Your task to perform on an android device: Go to accessibility settings Image 0: 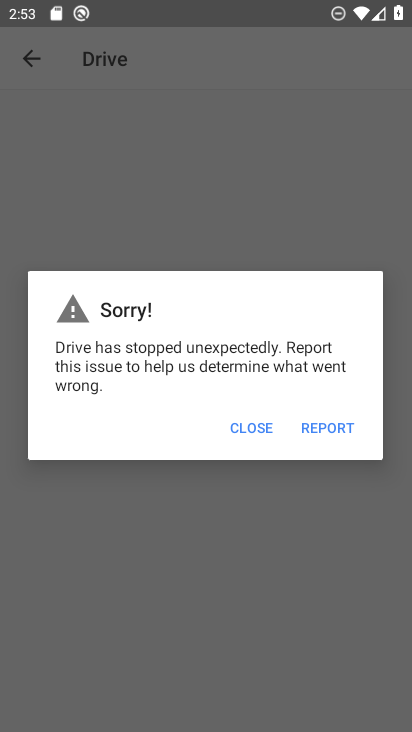
Step 0: click (239, 430)
Your task to perform on an android device: Go to accessibility settings Image 1: 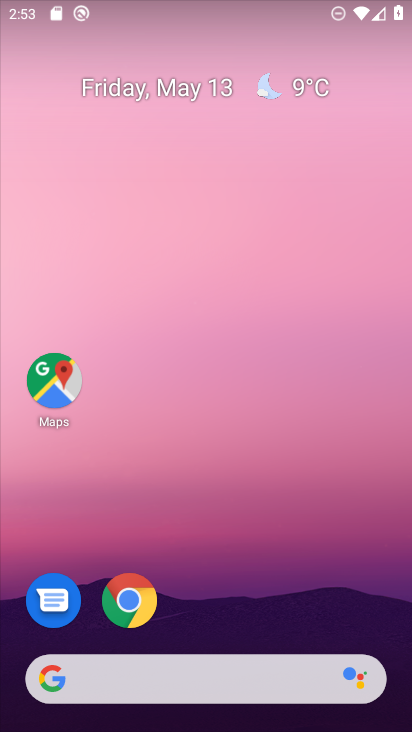
Step 1: drag from (258, 655) to (303, 98)
Your task to perform on an android device: Go to accessibility settings Image 2: 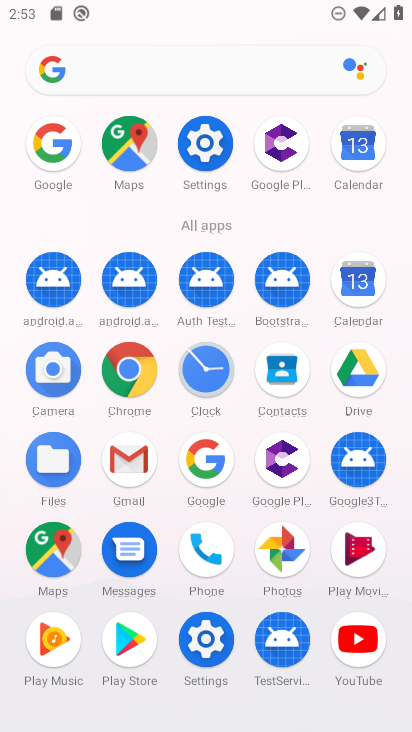
Step 2: click (195, 151)
Your task to perform on an android device: Go to accessibility settings Image 3: 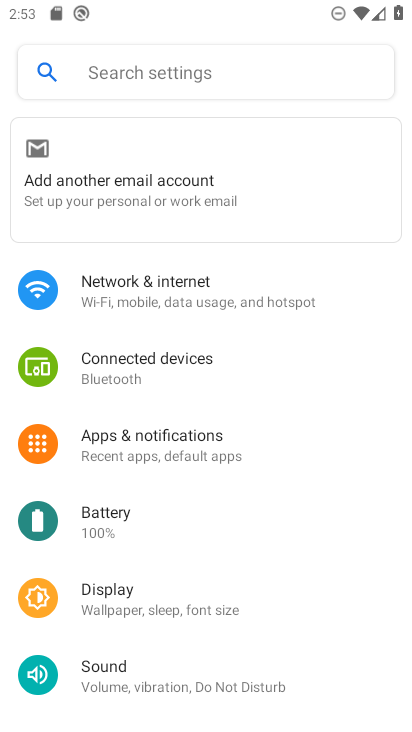
Step 3: drag from (170, 691) to (272, 202)
Your task to perform on an android device: Go to accessibility settings Image 4: 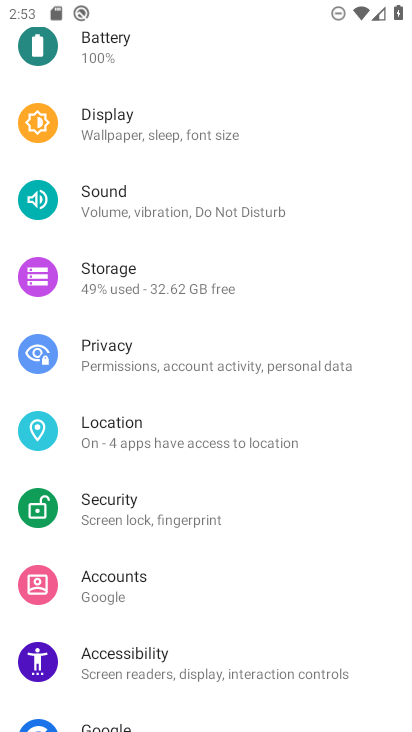
Step 4: click (206, 664)
Your task to perform on an android device: Go to accessibility settings Image 5: 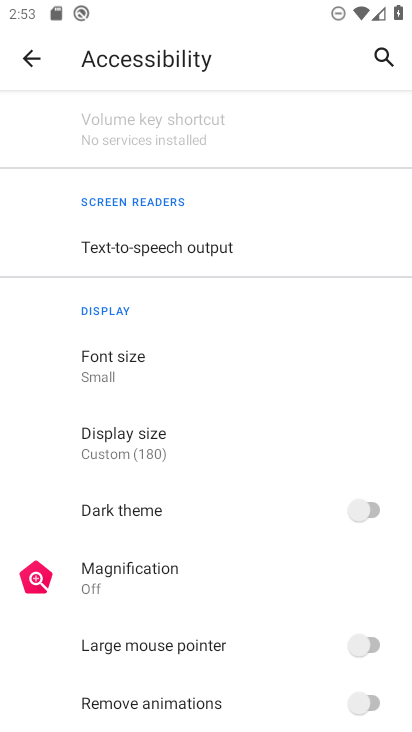
Step 5: task complete